Your task to perform on an android device: Go to location settings Image 0: 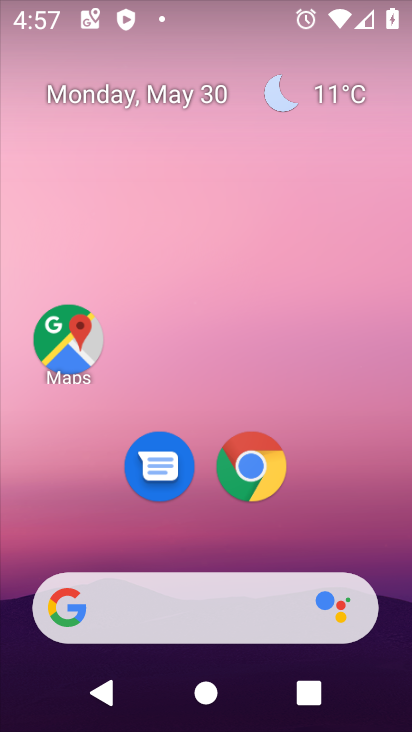
Step 0: drag from (349, 509) to (325, 97)
Your task to perform on an android device: Go to location settings Image 1: 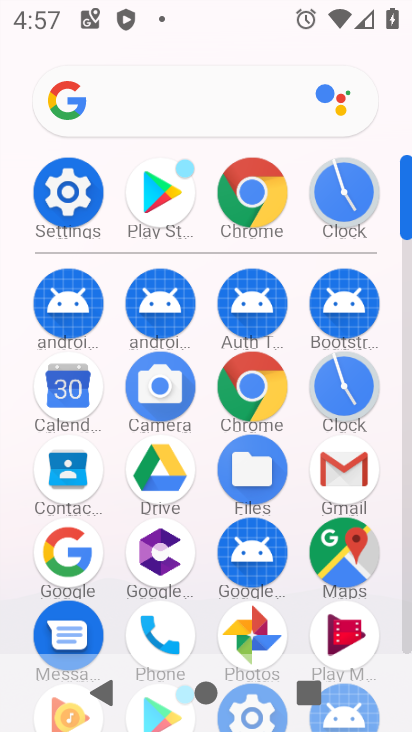
Step 1: click (57, 185)
Your task to perform on an android device: Go to location settings Image 2: 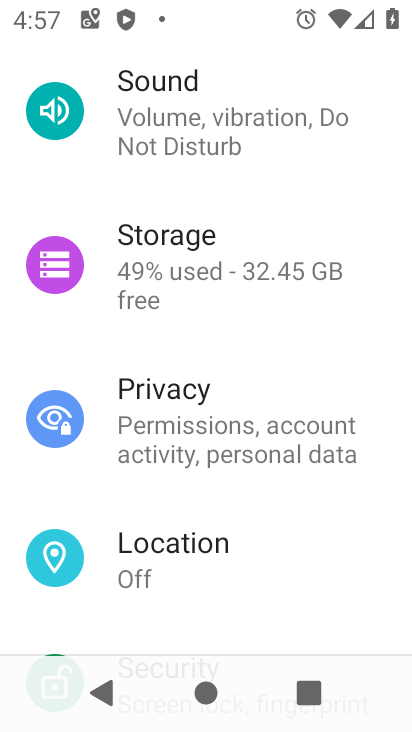
Step 2: drag from (263, 150) to (313, 540)
Your task to perform on an android device: Go to location settings Image 3: 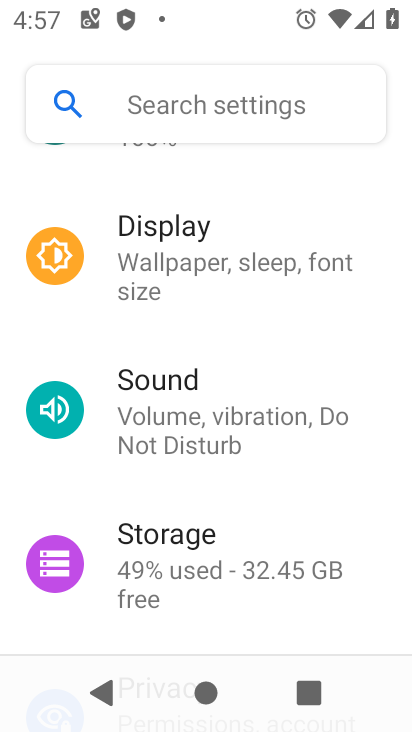
Step 3: drag from (290, 200) to (337, 570)
Your task to perform on an android device: Go to location settings Image 4: 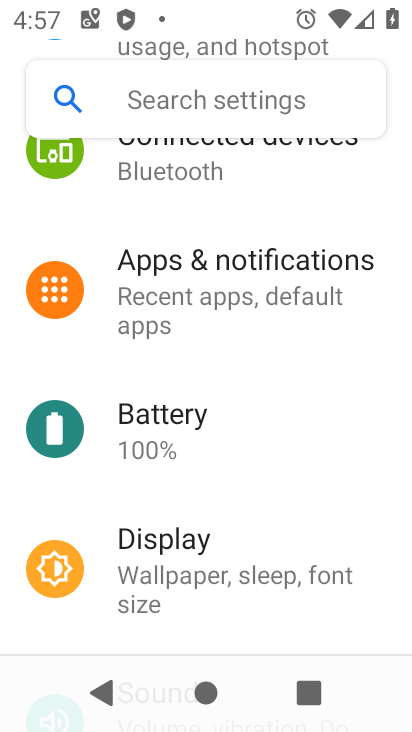
Step 4: drag from (254, 221) to (297, 559)
Your task to perform on an android device: Go to location settings Image 5: 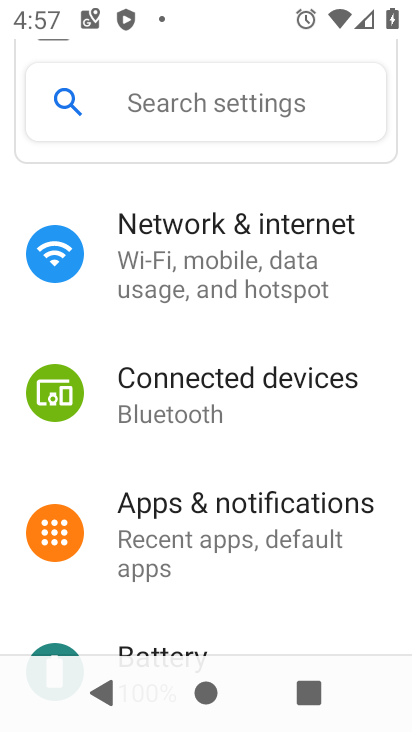
Step 5: drag from (203, 264) to (307, 599)
Your task to perform on an android device: Go to location settings Image 6: 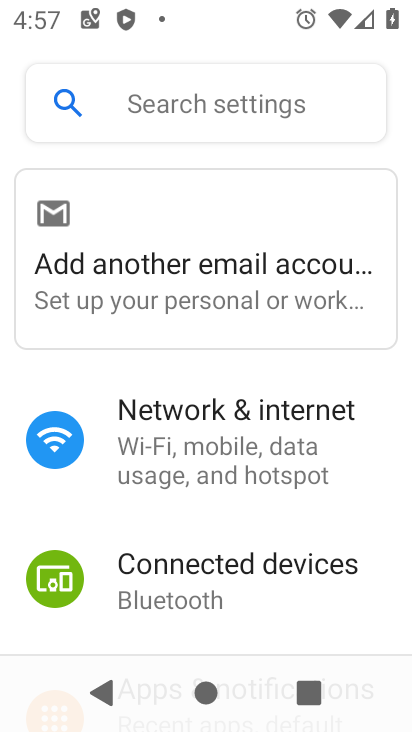
Step 6: drag from (260, 472) to (209, 133)
Your task to perform on an android device: Go to location settings Image 7: 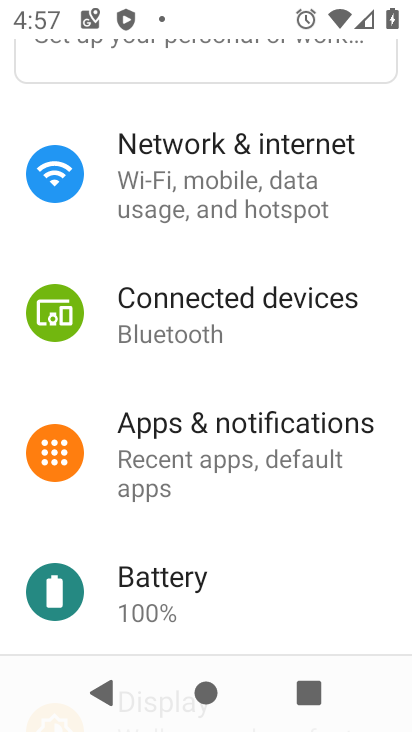
Step 7: drag from (270, 523) to (302, 109)
Your task to perform on an android device: Go to location settings Image 8: 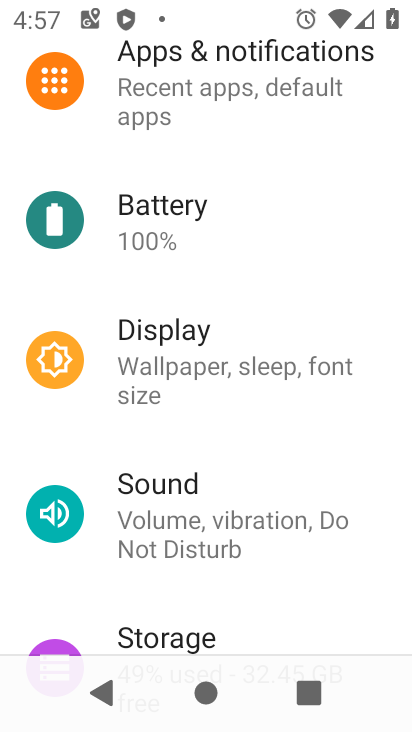
Step 8: drag from (232, 513) to (275, 150)
Your task to perform on an android device: Go to location settings Image 9: 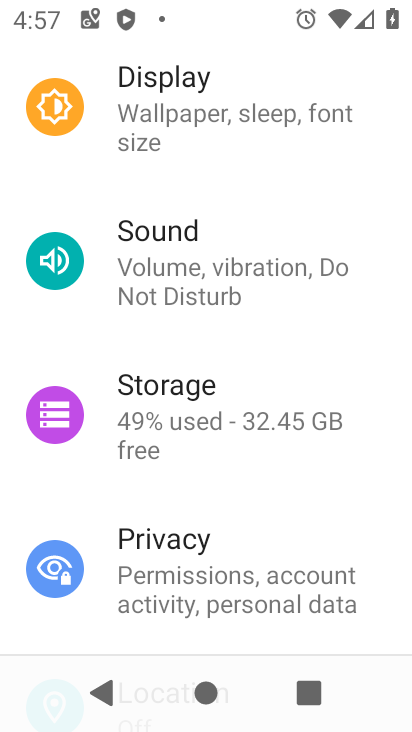
Step 9: drag from (249, 511) to (250, 103)
Your task to perform on an android device: Go to location settings Image 10: 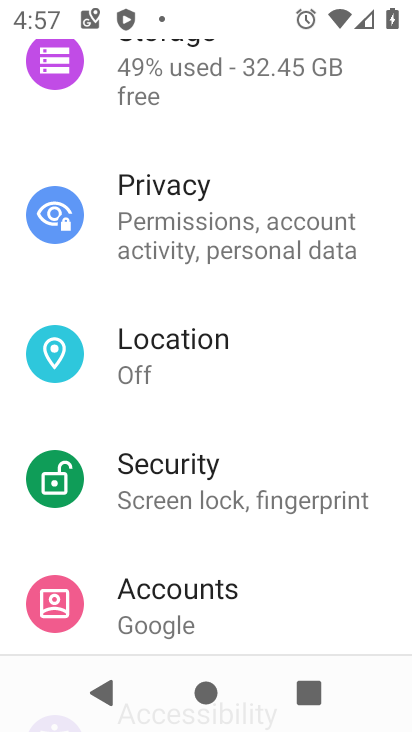
Step 10: click (208, 368)
Your task to perform on an android device: Go to location settings Image 11: 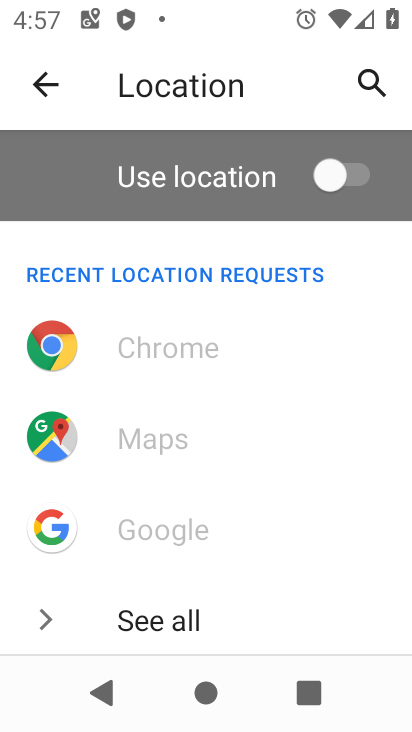
Step 11: task complete